Your task to perform on an android device: Open display settings Image 0: 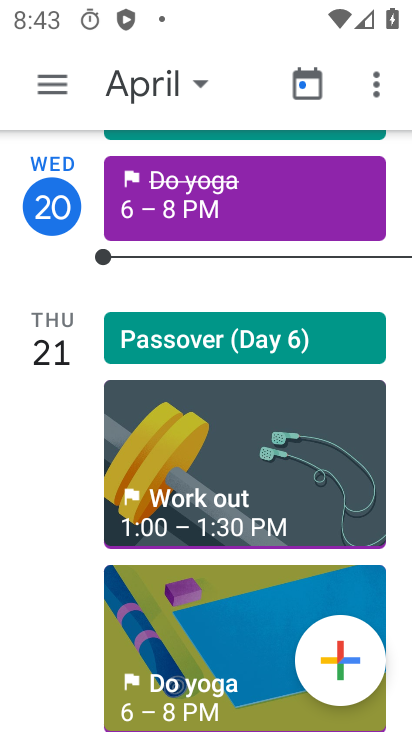
Step 0: press home button
Your task to perform on an android device: Open display settings Image 1: 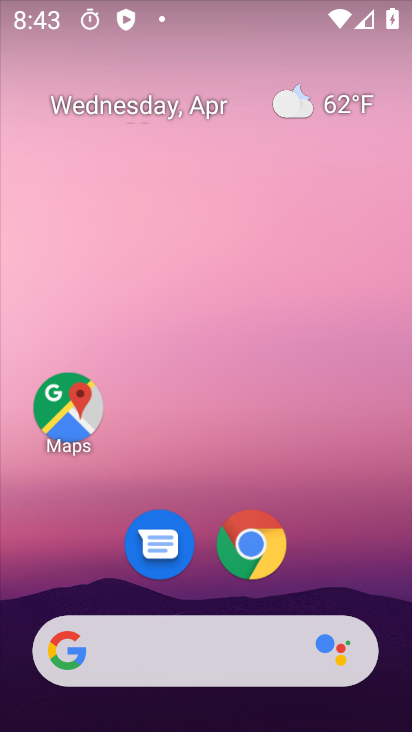
Step 1: drag from (308, 441) to (107, 48)
Your task to perform on an android device: Open display settings Image 2: 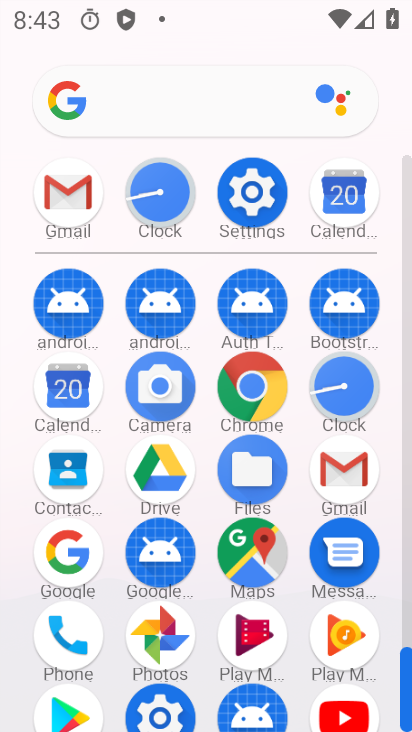
Step 2: click (239, 180)
Your task to perform on an android device: Open display settings Image 3: 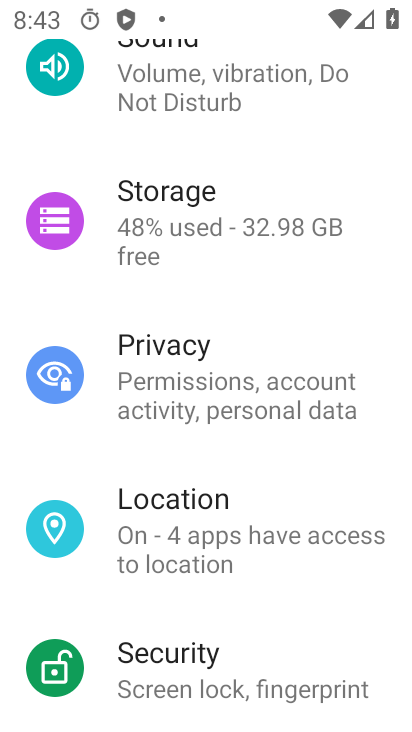
Step 3: drag from (298, 283) to (275, 671)
Your task to perform on an android device: Open display settings Image 4: 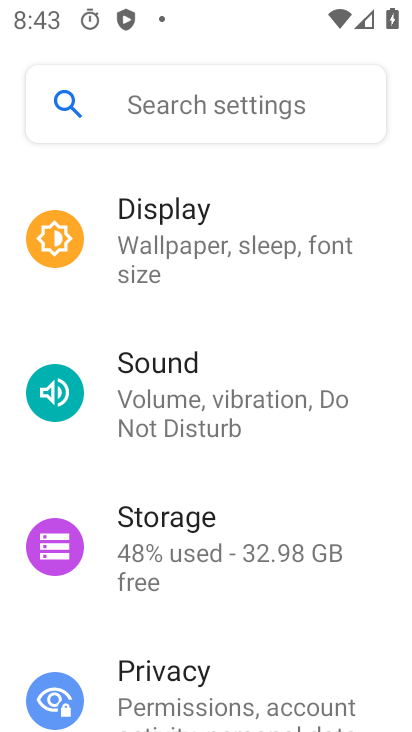
Step 4: click (160, 258)
Your task to perform on an android device: Open display settings Image 5: 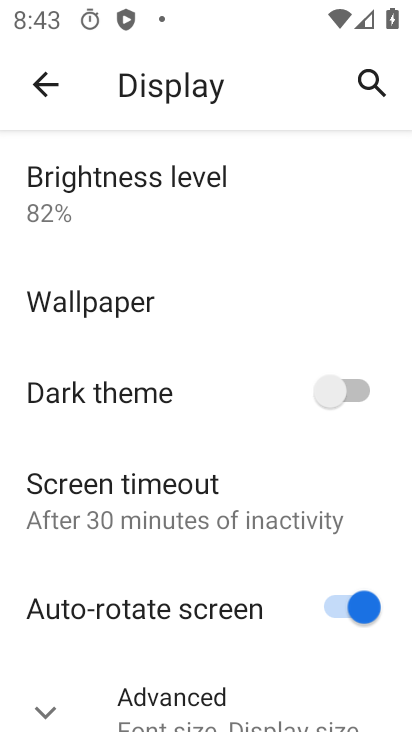
Step 5: click (177, 715)
Your task to perform on an android device: Open display settings Image 6: 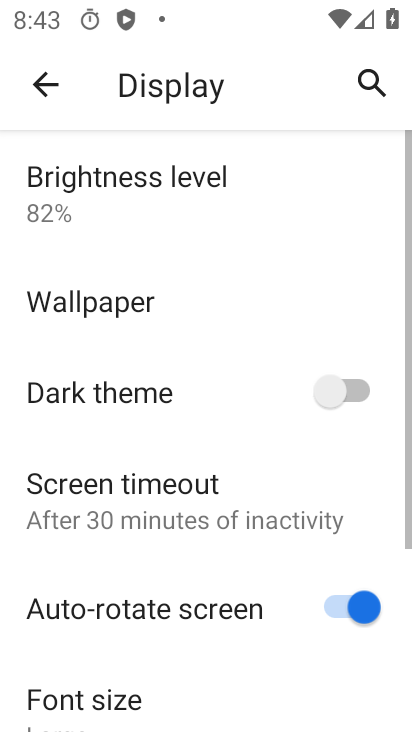
Step 6: task complete